Your task to perform on an android device: check google app version Image 0: 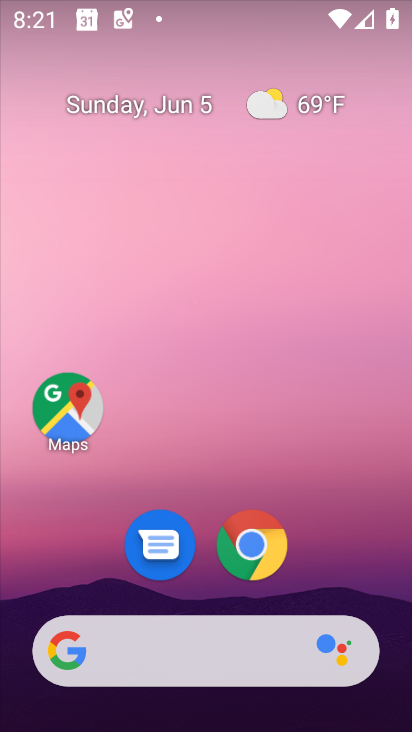
Step 0: drag from (374, 597) to (395, 196)
Your task to perform on an android device: check google app version Image 1: 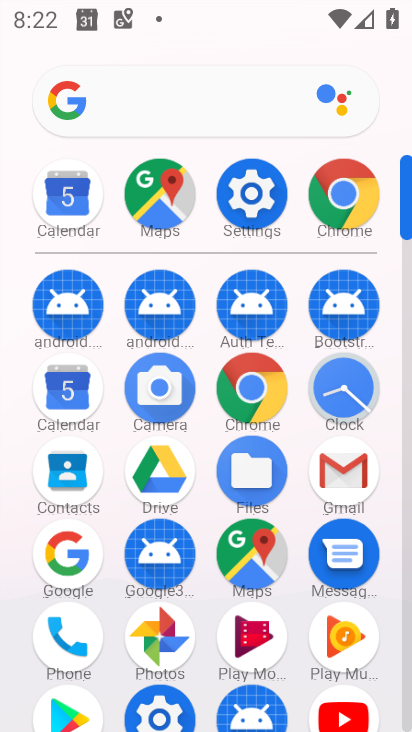
Step 1: click (90, 554)
Your task to perform on an android device: check google app version Image 2: 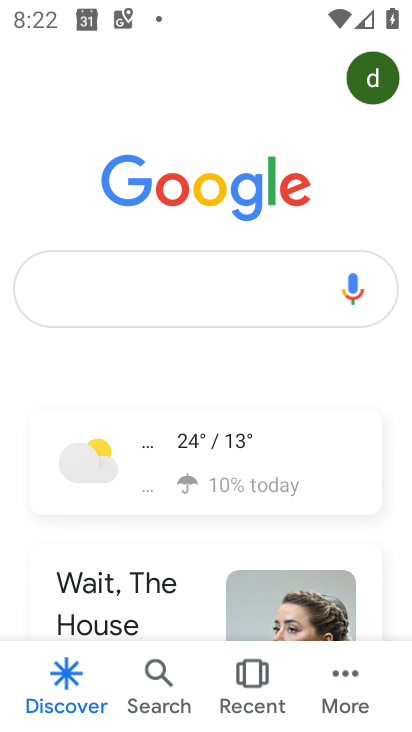
Step 2: click (349, 697)
Your task to perform on an android device: check google app version Image 3: 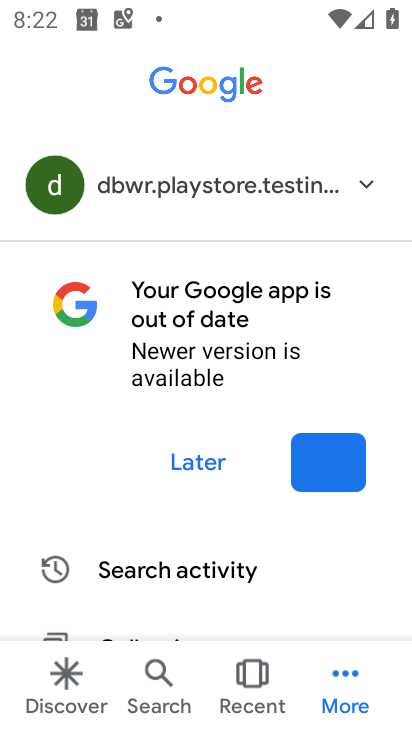
Step 3: drag from (304, 585) to (306, 415)
Your task to perform on an android device: check google app version Image 4: 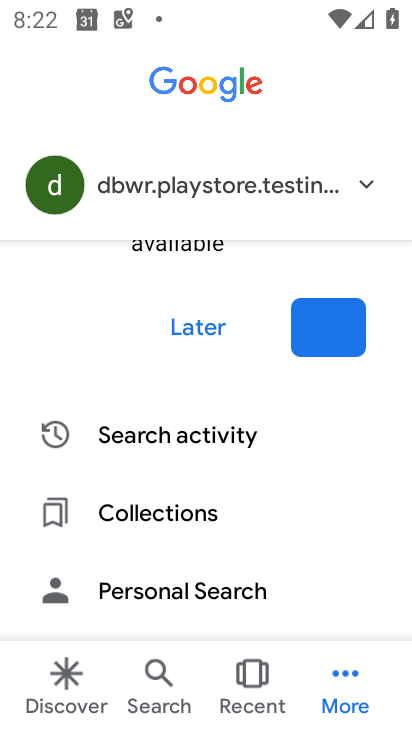
Step 4: drag from (327, 557) to (327, 405)
Your task to perform on an android device: check google app version Image 5: 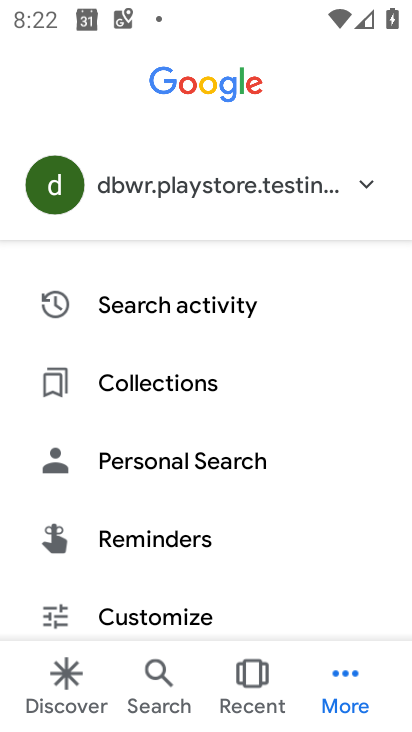
Step 5: drag from (321, 544) to (326, 383)
Your task to perform on an android device: check google app version Image 6: 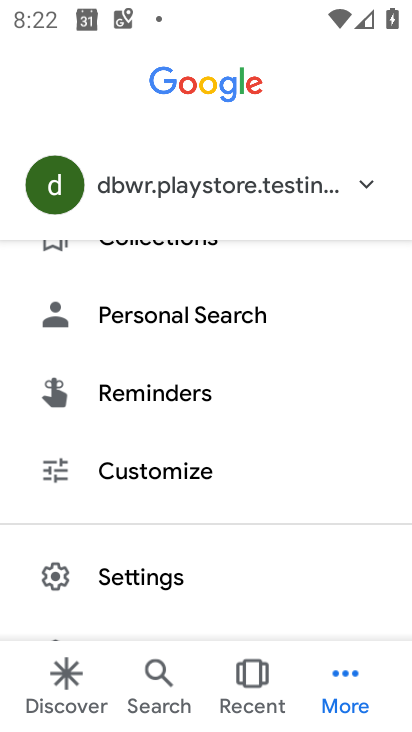
Step 6: click (175, 591)
Your task to perform on an android device: check google app version Image 7: 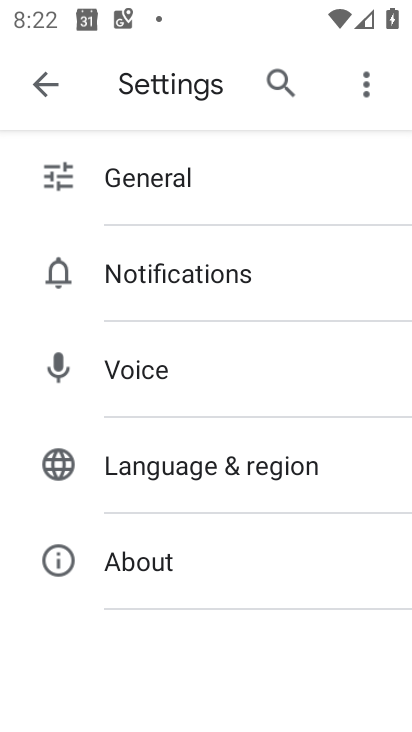
Step 7: click (183, 583)
Your task to perform on an android device: check google app version Image 8: 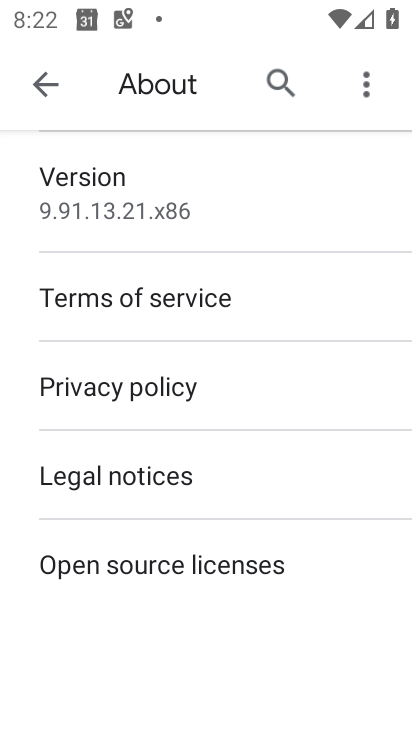
Step 8: task complete